Your task to perform on an android device: Open Amazon Image 0: 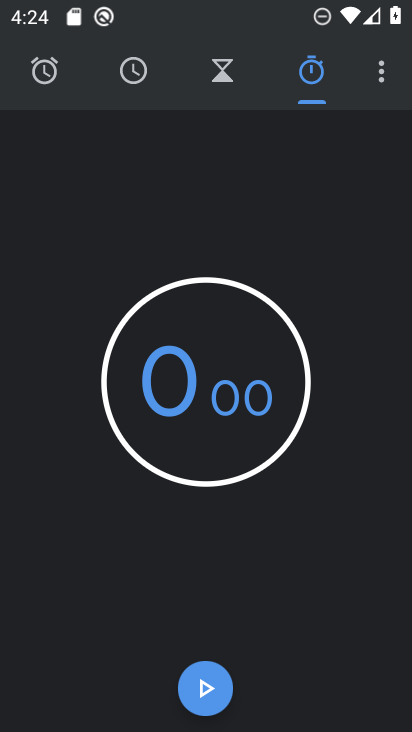
Step 0: press home button
Your task to perform on an android device: Open Amazon Image 1: 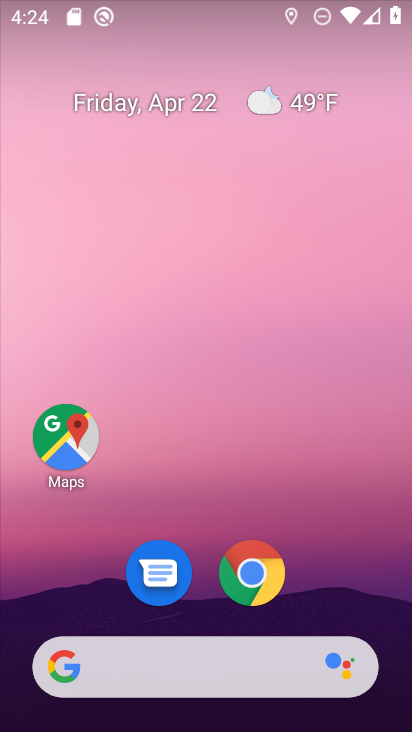
Step 1: click (266, 593)
Your task to perform on an android device: Open Amazon Image 2: 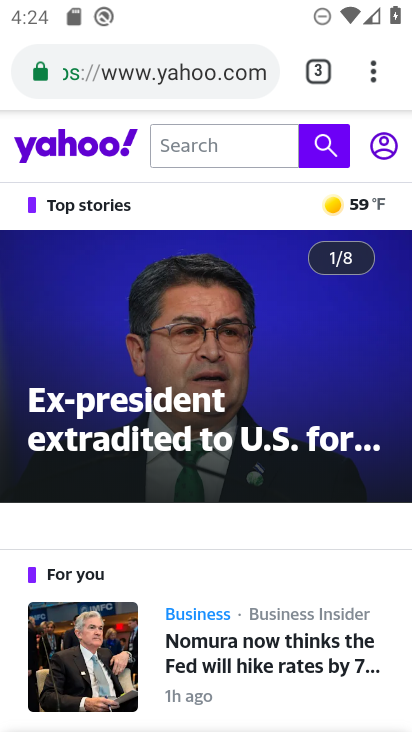
Step 2: click (322, 71)
Your task to perform on an android device: Open Amazon Image 3: 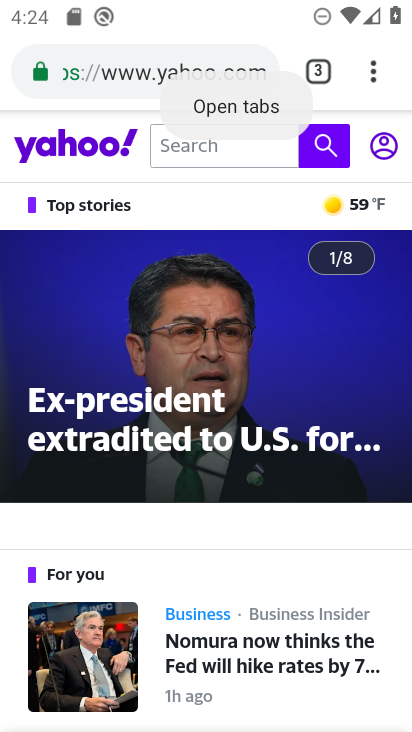
Step 3: click (322, 71)
Your task to perform on an android device: Open Amazon Image 4: 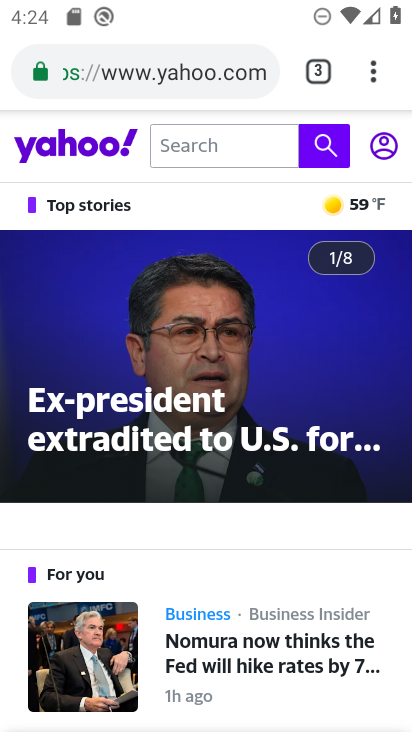
Step 4: click (322, 71)
Your task to perform on an android device: Open Amazon Image 5: 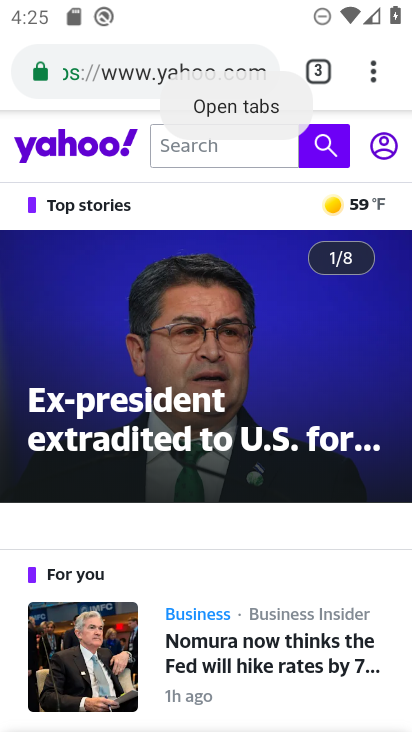
Step 5: click (371, 72)
Your task to perform on an android device: Open Amazon Image 6: 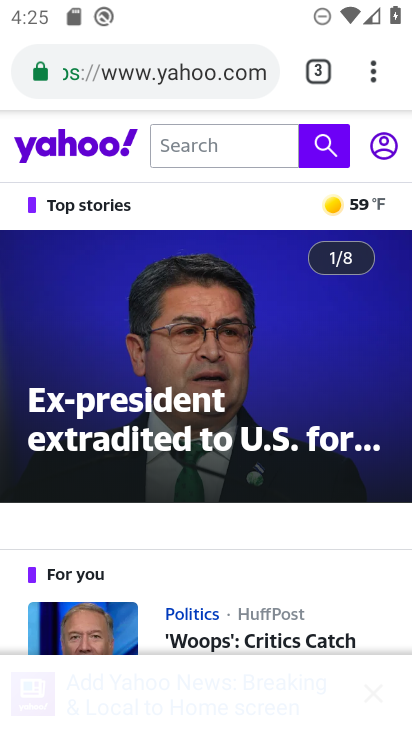
Step 6: click (326, 65)
Your task to perform on an android device: Open Amazon Image 7: 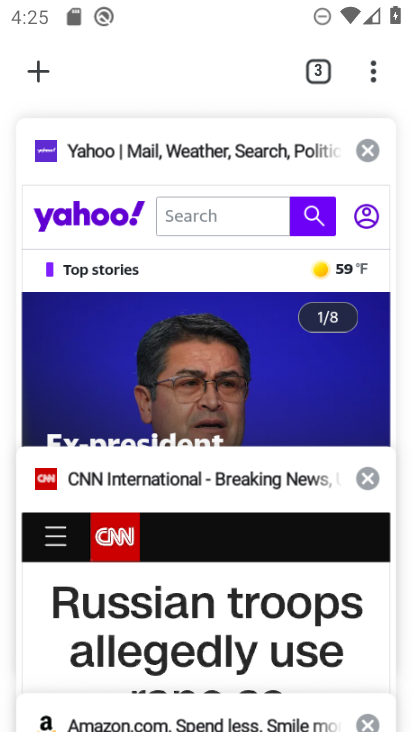
Step 7: click (25, 70)
Your task to perform on an android device: Open Amazon Image 8: 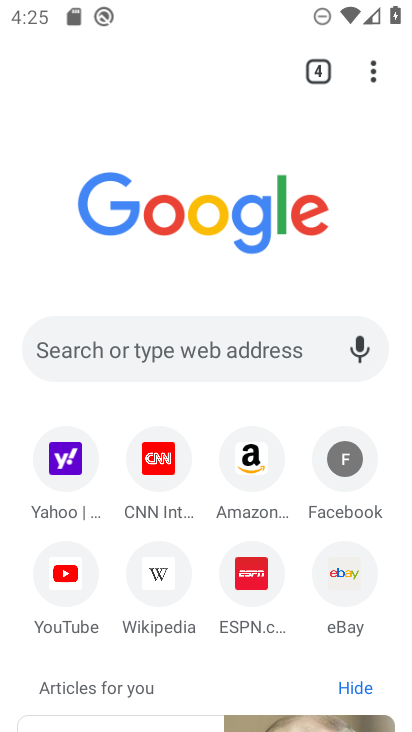
Step 8: click (261, 471)
Your task to perform on an android device: Open Amazon Image 9: 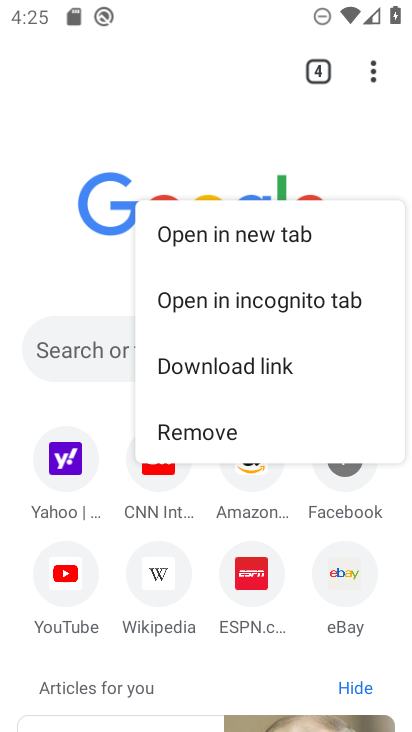
Step 9: click (254, 475)
Your task to perform on an android device: Open Amazon Image 10: 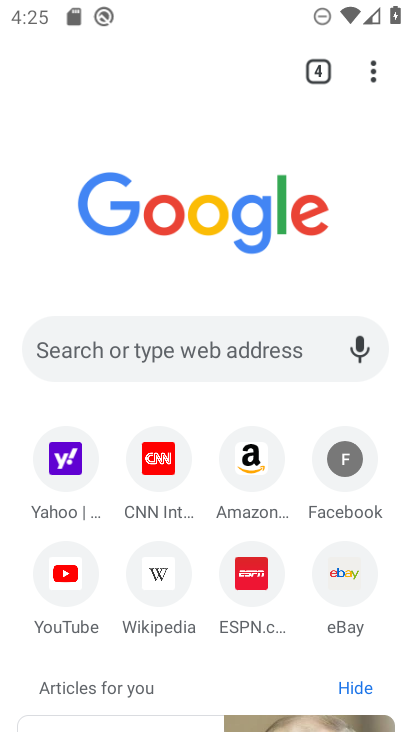
Step 10: click (267, 467)
Your task to perform on an android device: Open Amazon Image 11: 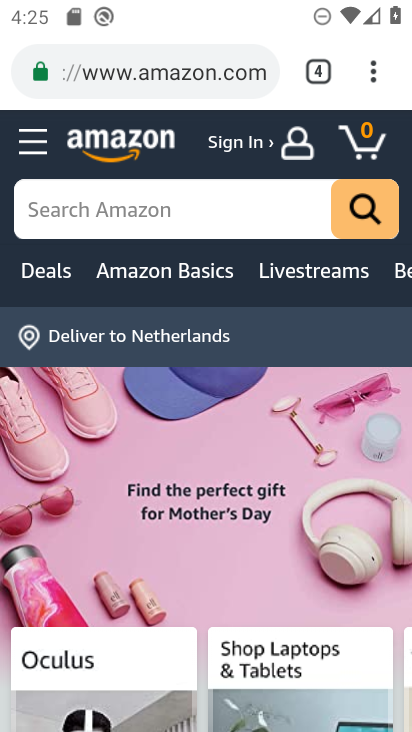
Step 11: task complete